Your task to perform on an android device: allow cookies in the chrome app Image 0: 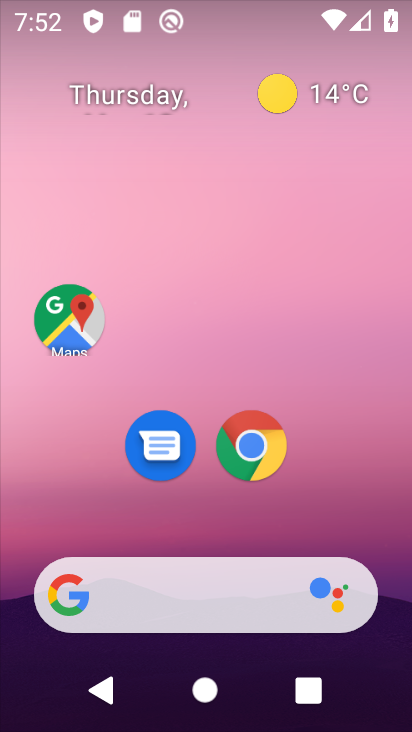
Step 0: click (253, 447)
Your task to perform on an android device: allow cookies in the chrome app Image 1: 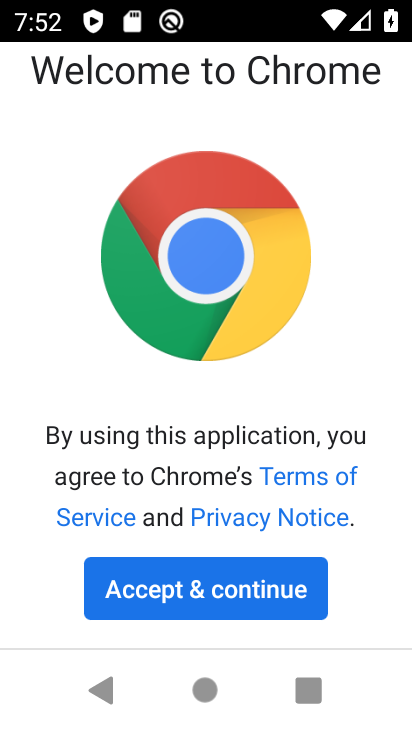
Step 1: click (232, 586)
Your task to perform on an android device: allow cookies in the chrome app Image 2: 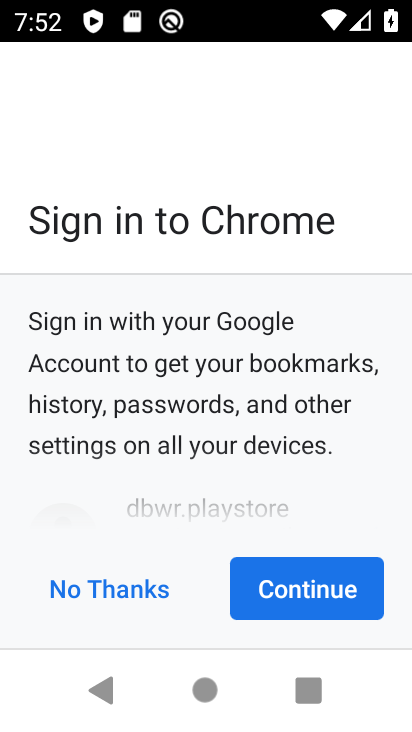
Step 2: click (321, 591)
Your task to perform on an android device: allow cookies in the chrome app Image 3: 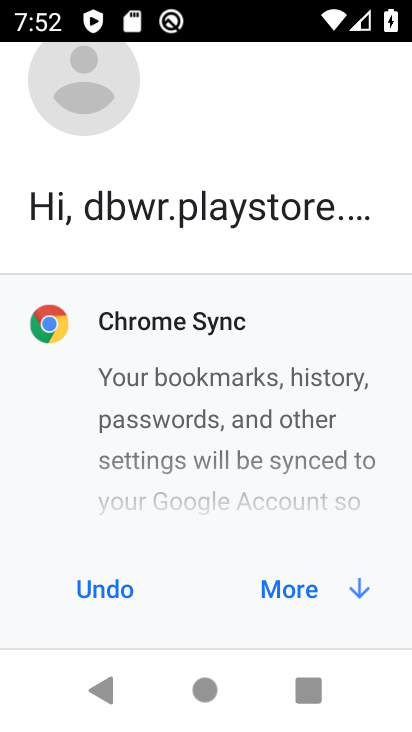
Step 3: click (281, 586)
Your task to perform on an android device: allow cookies in the chrome app Image 4: 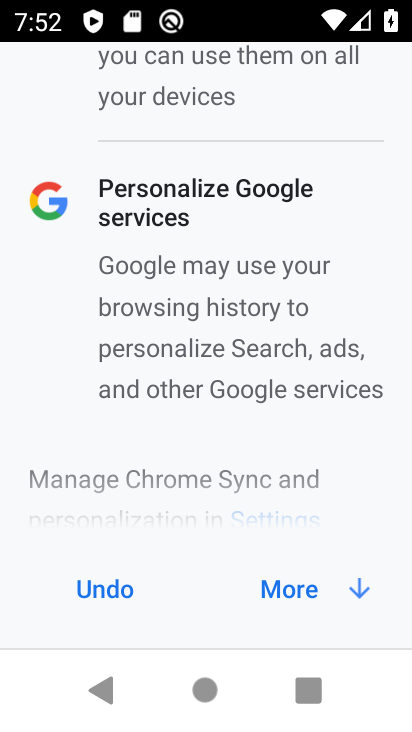
Step 4: click (292, 589)
Your task to perform on an android device: allow cookies in the chrome app Image 5: 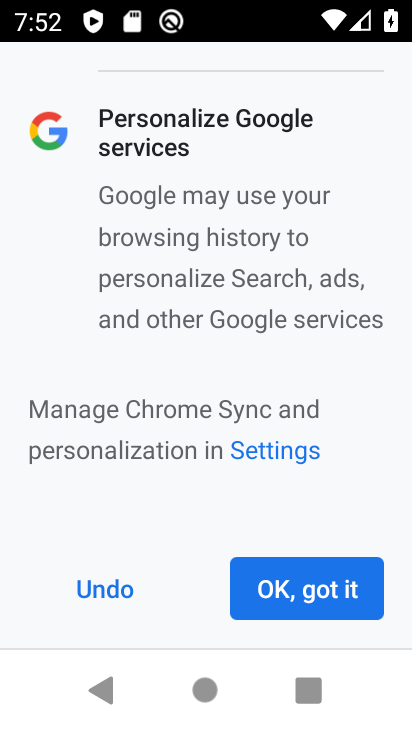
Step 5: click (290, 587)
Your task to perform on an android device: allow cookies in the chrome app Image 6: 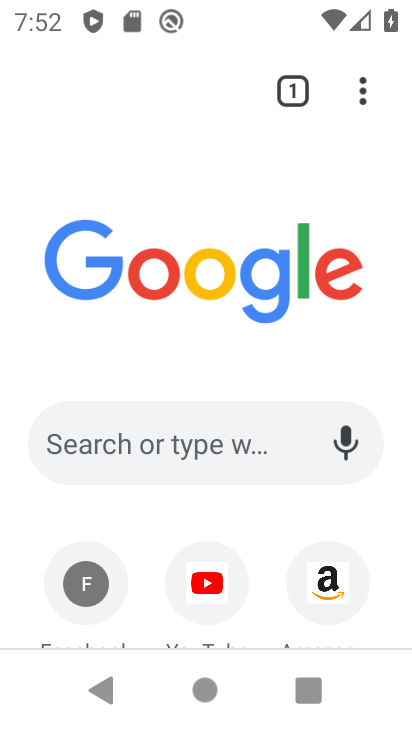
Step 6: click (366, 103)
Your task to perform on an android device: allow cookies in the chrome app Image 7: 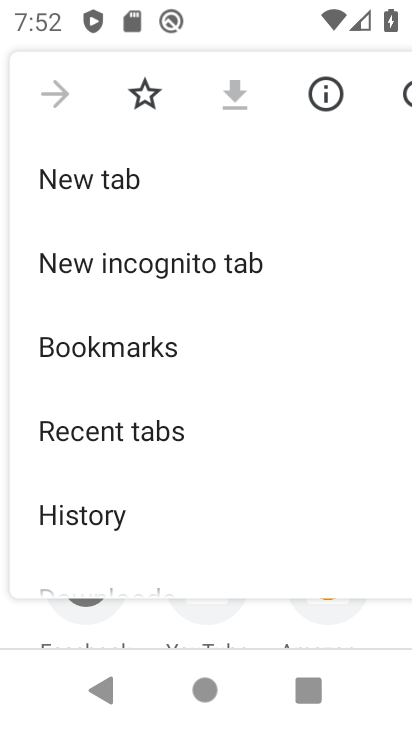
Step 7: drag from (149, 497) to (127, 143)
Your task to perform on an android device: allow cookies in the chrome app Image 8: 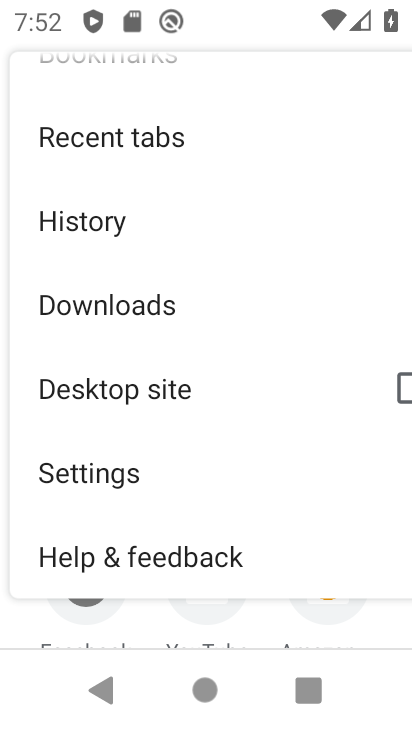
Step 8: click (96, 475)
Your task to perform on an android device: allow cookies in the chrome app Image 9: 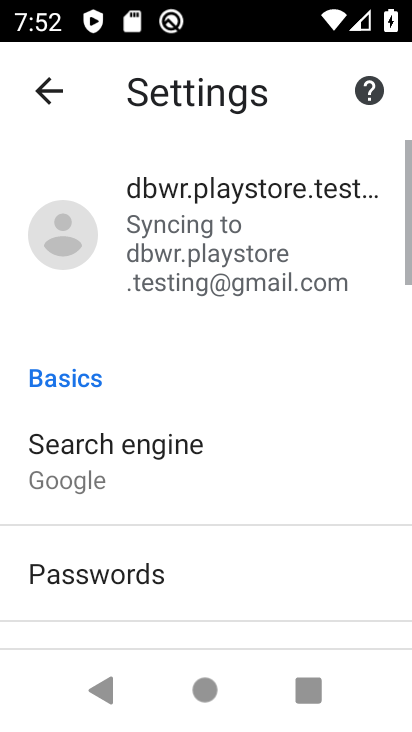
Step 9: drag from (135, 588) to (142, 266)
Your task to perform on an android device: allow cookies in the chrome app Image 10: 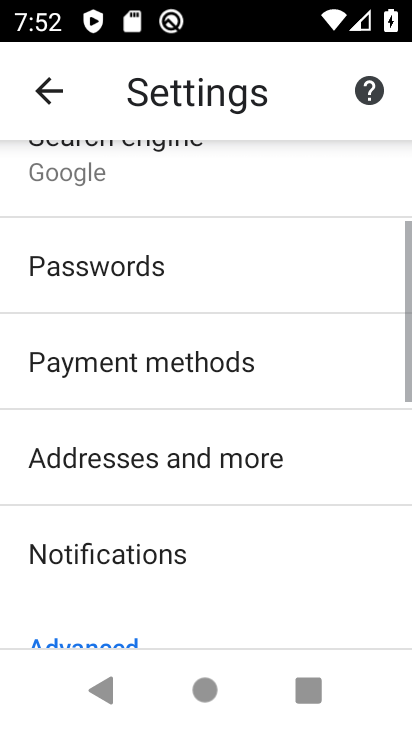
Step 10: drag from (155, 594) to (163, 301)
Your task to perform on an android device: allow cookies in the chrome app Image 11: 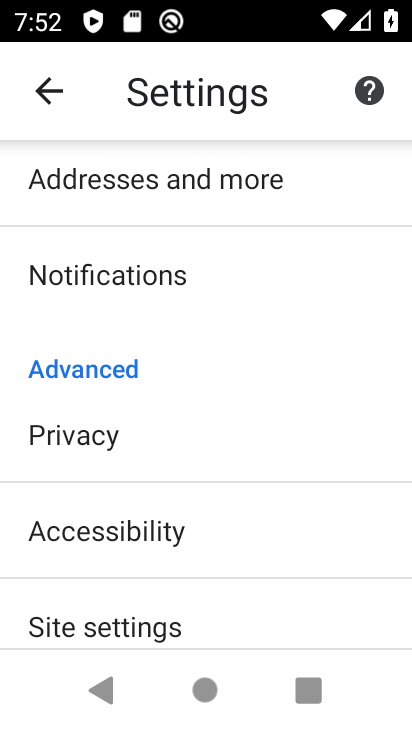
Step 11: drag from (172, 581) to (177, 271)
Your task to perform on an android device: allow cookies in the chrome app Image 12: 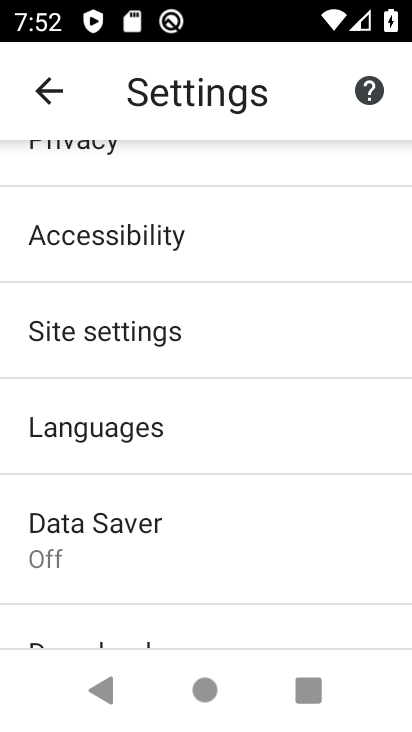
Step 12: click (144, 327)
Your task to perform on an android device: allow cookies in the chrome app Image 13: 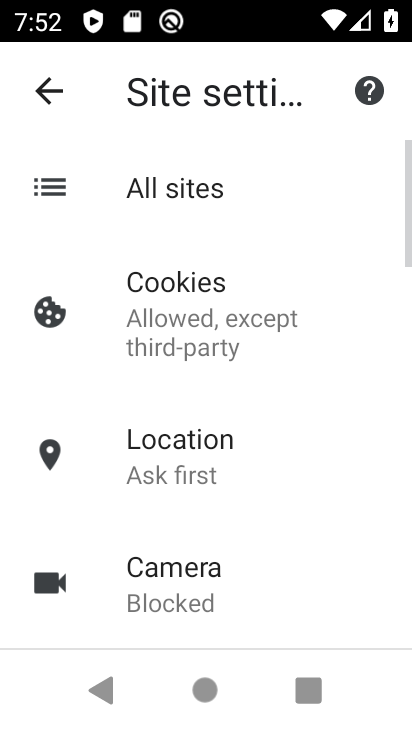
Step 13: click (184, 334)
Your task to perform on an android device: allow cookies in the chrome app Image 14: 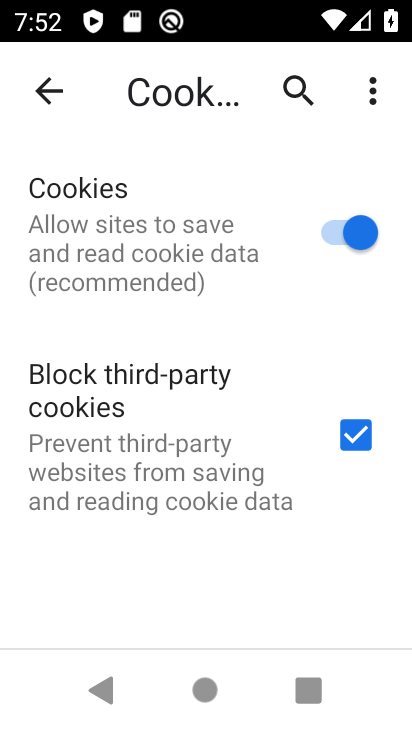
Step 14: task complete